Your task to perform on an android device: Open Wikipedia Image 0: 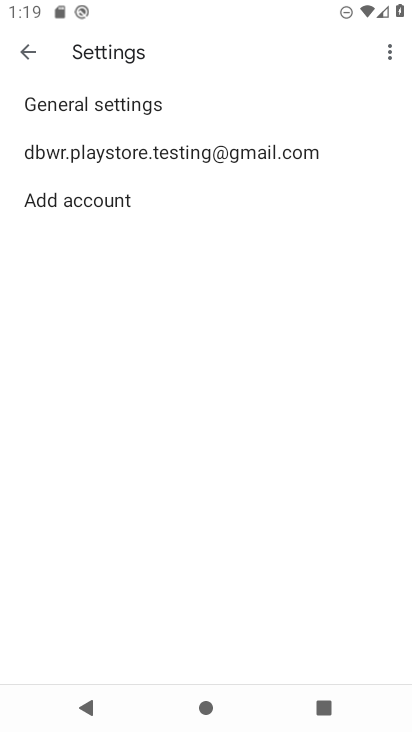
Step 0: press home button
Your task to perform on an android device: Open Wikipedia Image 1: 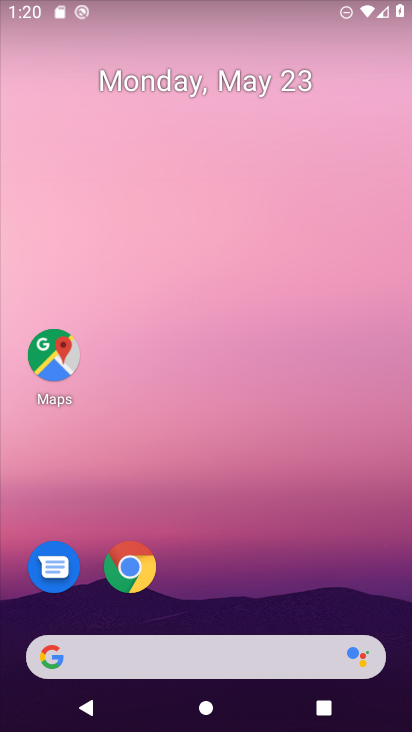
Step 1: click (146, 580)
Your task to perform on an android device: Open Wikipedia Image 2: 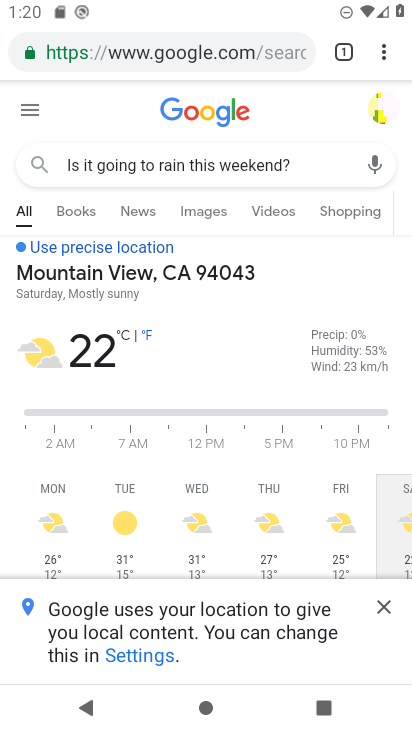
Step 2: click (160, 43)
Your task to perform on an android device: Open Wikipedia Image 3: 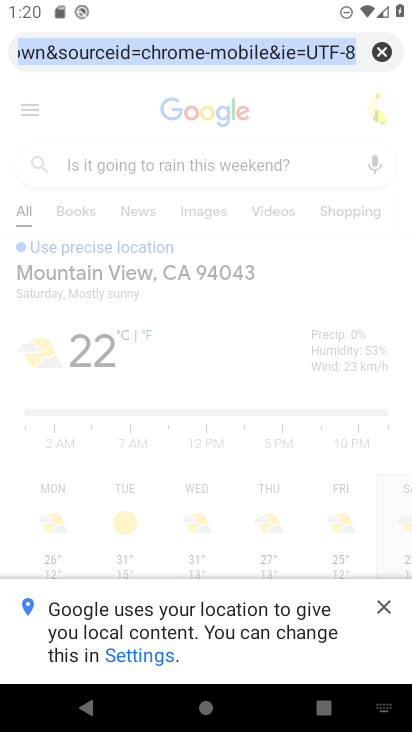
Step 3: click (330, 46)
Your task to perform on an android device: Open Wikipedia Image 4: 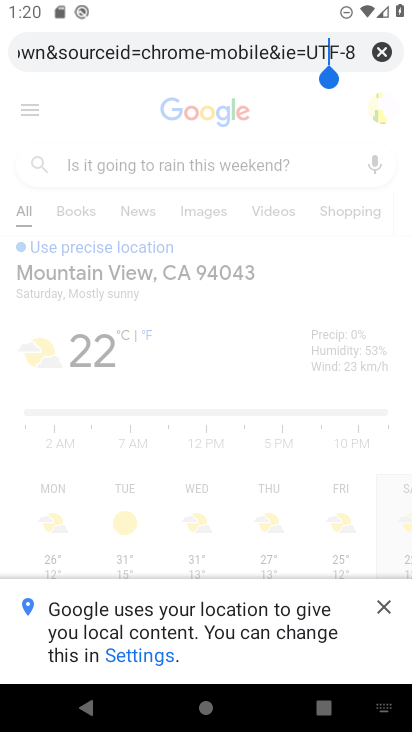
Step 4: click (374, 49)
Your task to perform on an android device: Open Wikipedia Image 5: 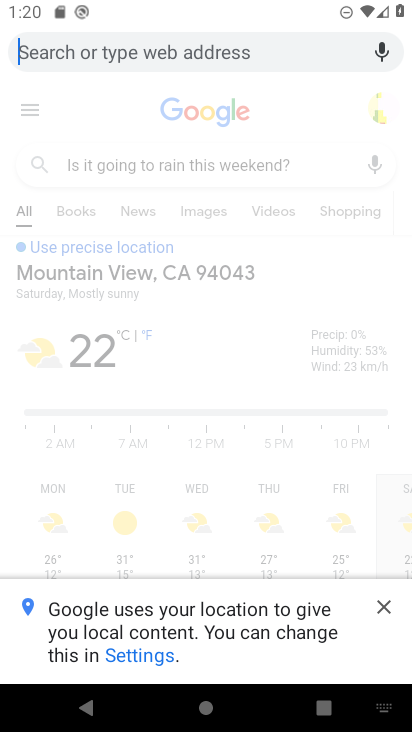
Step 5: type "Wikipedia"
Your task to perform on an android device: Open Wikipedia Image 6: 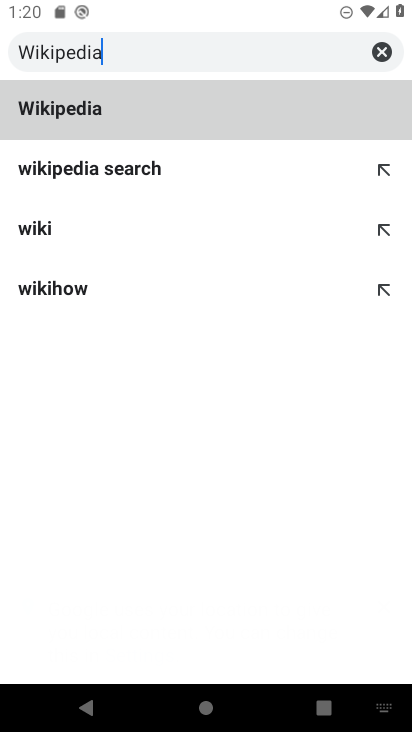
Step 6: type ""
Your task to perform on an android device: Open Wikipedia Image 7: 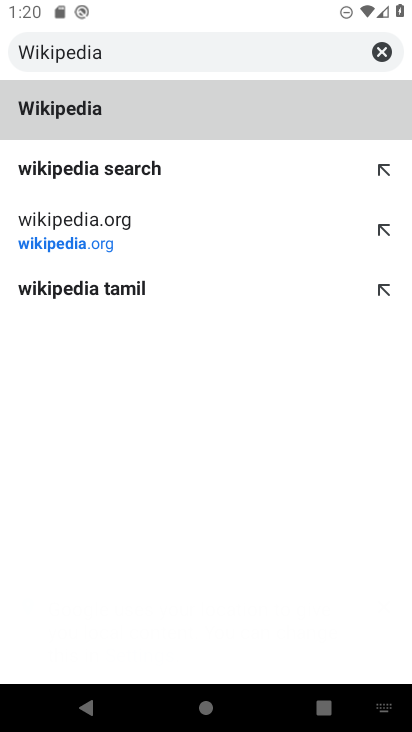
Step 7: click (73, 98)
Your task to perform on an android device: Open Wikipedia Image 8: 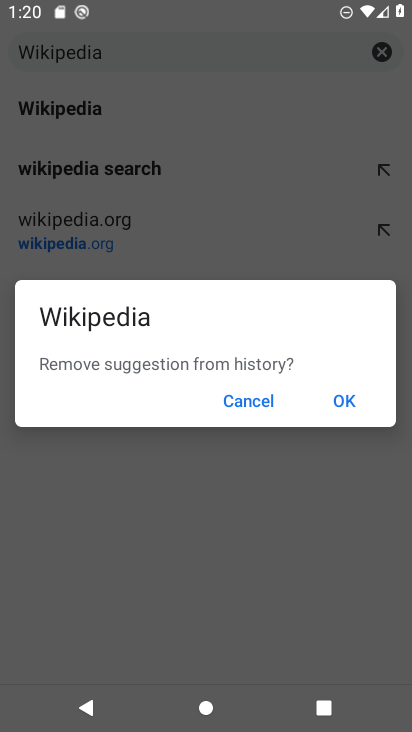
Step 8: click (261, 403)
Your task to perform on an android device: Open Wikipedia Image 9: 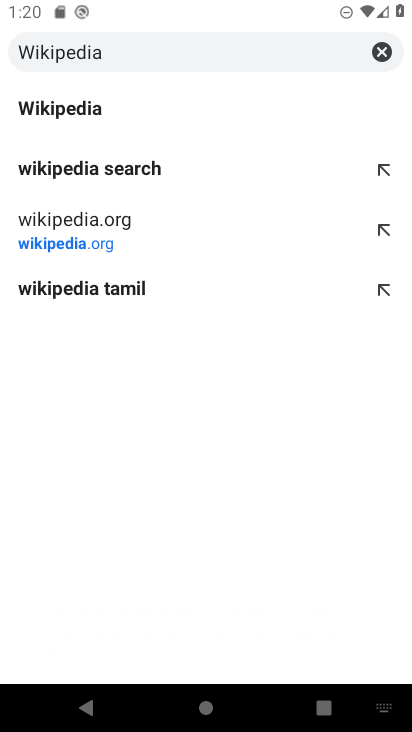
Step 9: click (63, 220)
Your task to perform on an android device: Open Wikipedia Image 10: 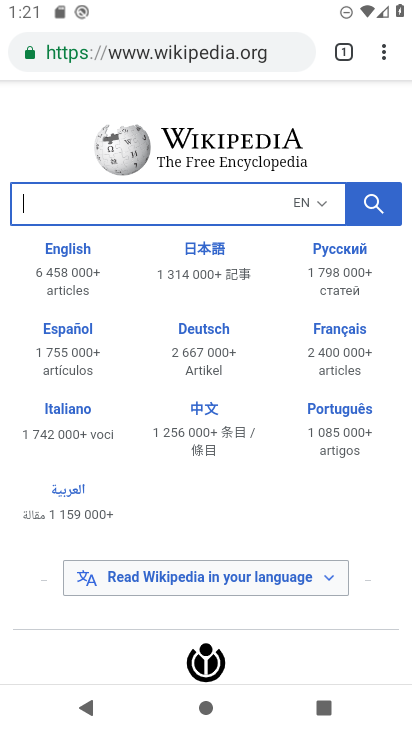
Step 10: task complete